Your task to perform on an android device: open a bookmark in the chrome app Image 0: 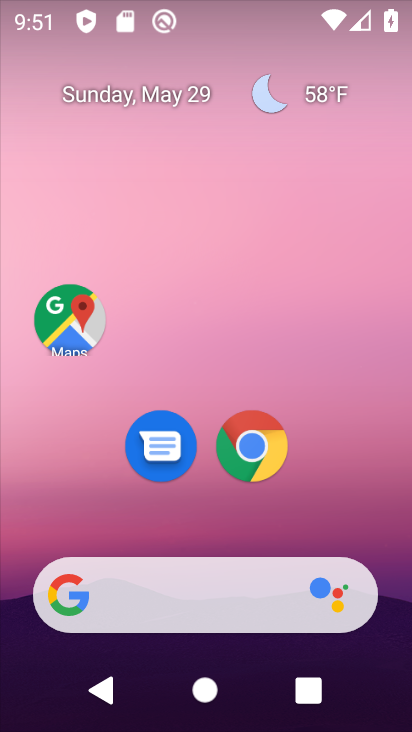
Step 0: drag from (398, 551) to (238, 22)
Your task to perform on an android device: open a bookmark in the chrome app Image 1: 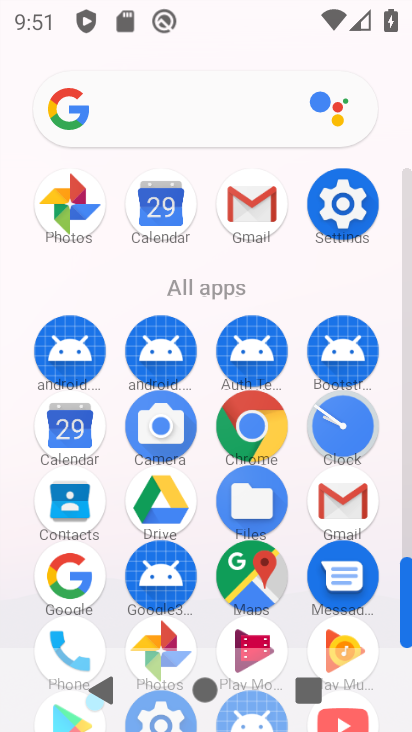
Step 1: drag from (8, 624) to (8, 263)
Your task to perform on an android device: open a bookmark in the chrome app Image 2: 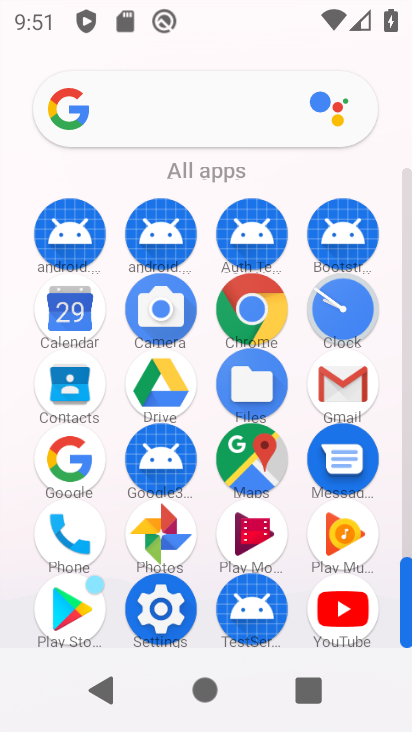
Step 2: click (247, 302)
Your task to perform on an android device: open a bookmark in the chrome app Image 3: 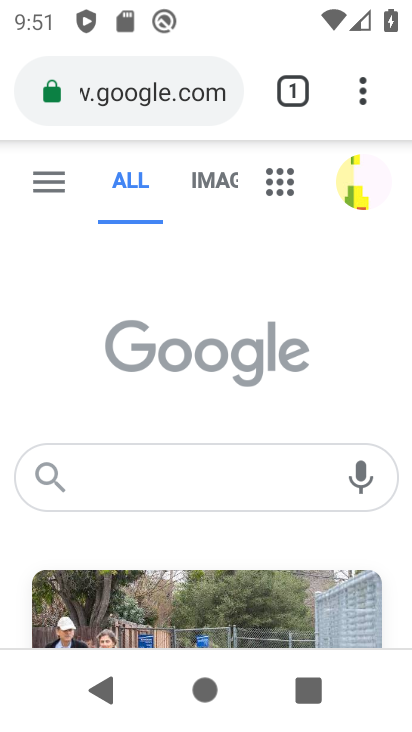
Step 3: drag from (364, 86) to (130, 334)
Your task to perform on an android device: open a bookmark in the chrome app Image 4: 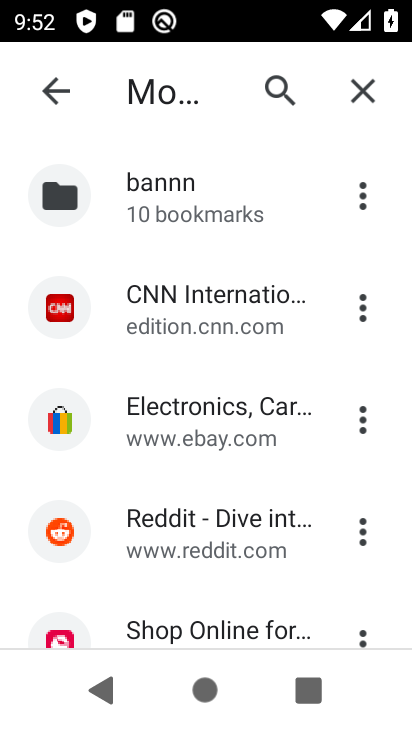
Step 4: drag from (218, 398) to (218, 233)
Your task to perform on an android device: open a bookmark in the chrome app Image 5: 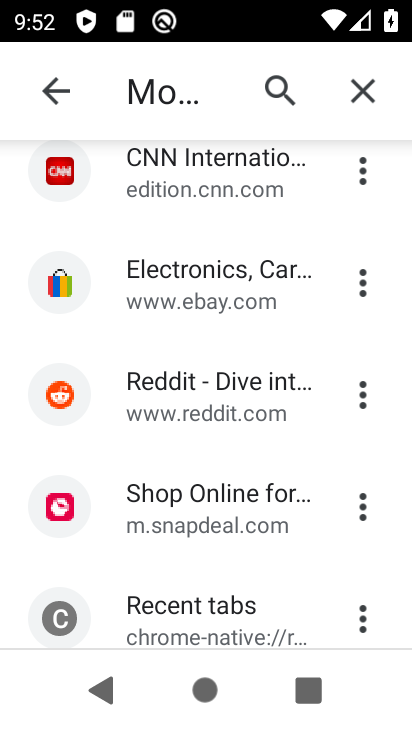
Step 5: click (184, 260)
Your task to perform on an android device: open a bookmark in the chrome app Image 6: 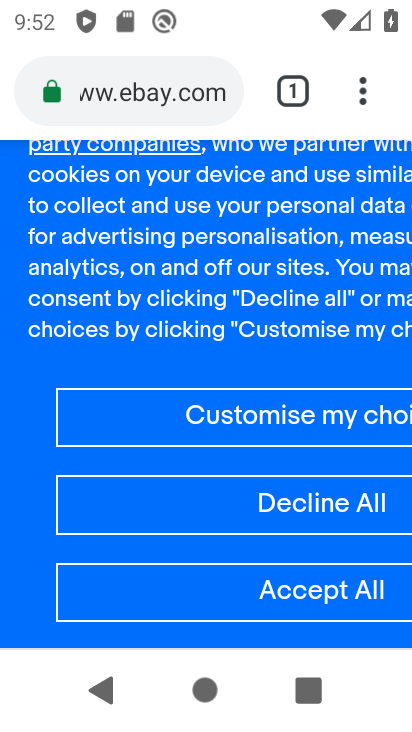
Step 6: task complete